Your task to perform on an android device: Open Youtube and go to the subscriptions tab Image 0: 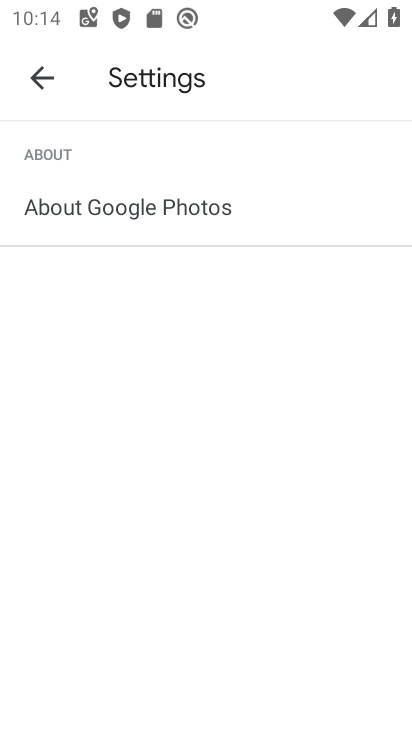
Step 0: press home button
Your task to perform on an android device: Open Youtube and go to the subscriptions tab Image 1: 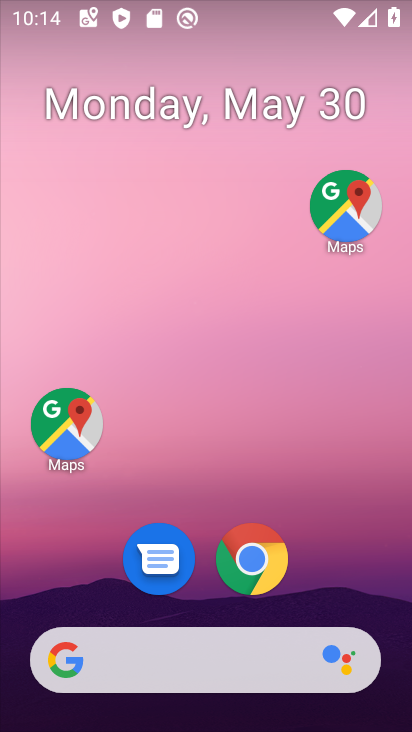
Step 1: drag from (361, 526) to (311, 123)
Your task to perform on an android device: Open Youtube and go to the subscriptions tab Image 2: 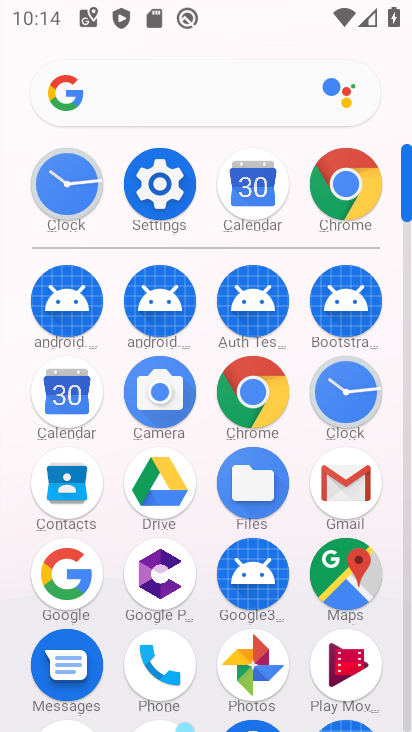
Step 2: drag from (301, 519) to (337, 137)
Your task to perform on an android device: Open Youtube and go to the subscriptions tab Image 3: 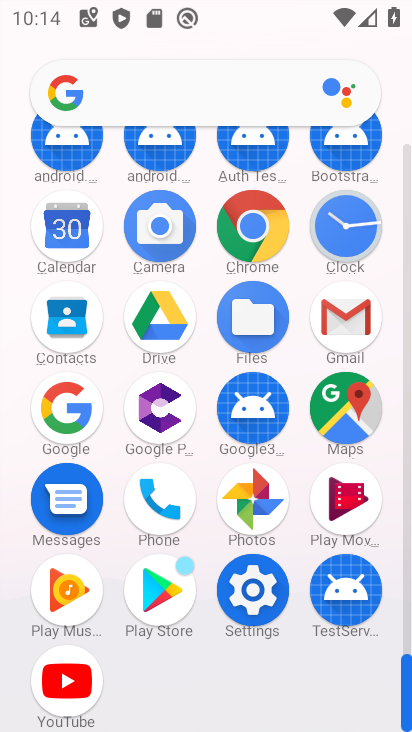
Step 3: click (68, 669)
Your task to perform on an android device: Open Youtube and go to the subscriptions tab Image 4: 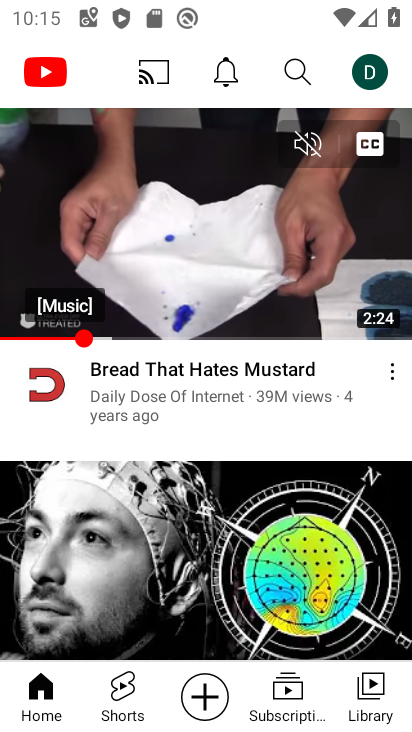
Step 4: click (291, 712)
Your task to perform on an android device: Open Youtube and go to the subscriptions tab Image 5: 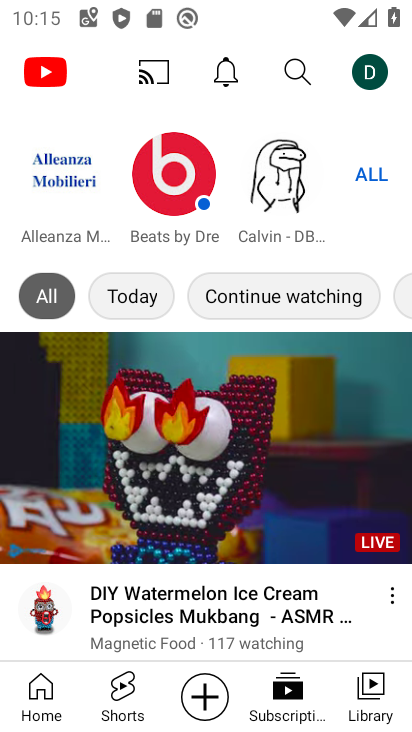
Step 5: task complete